Your task to perform on an android device: Open Maps and search for coffee Image 0: 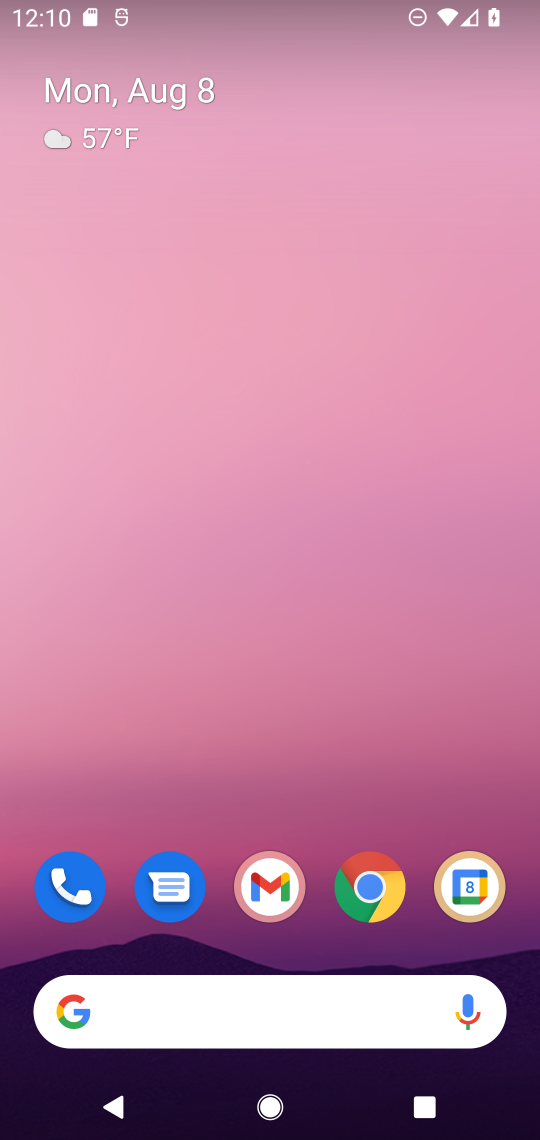
Step 0: drag from (301, 772) to (211, 9)
Your task to perform on an android device: Open Maps and search for coffee Image 1: 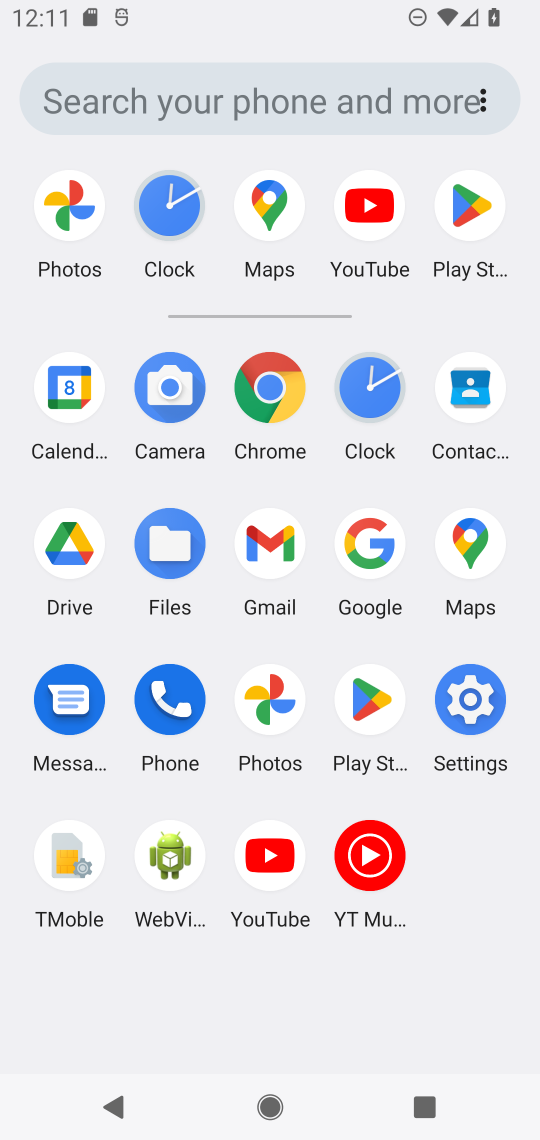
Step 1: click (472, 559)
Your task to perform on an android device: Open Maps and search for coffee Image 2: 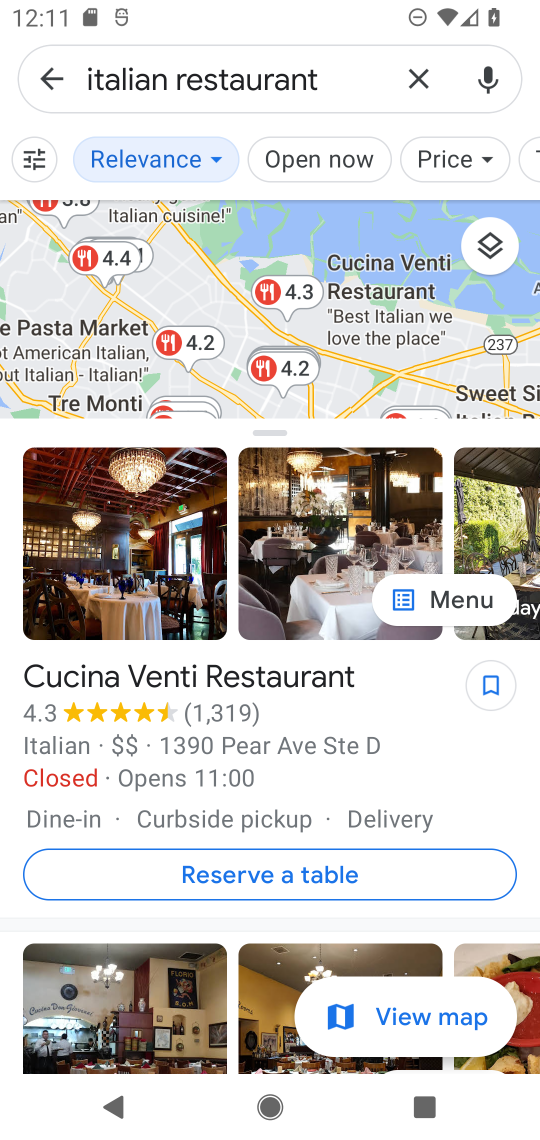
Step 2: click (412, 75)
Your task to perform on an android device: Open Maps and search for coffee Image 3: 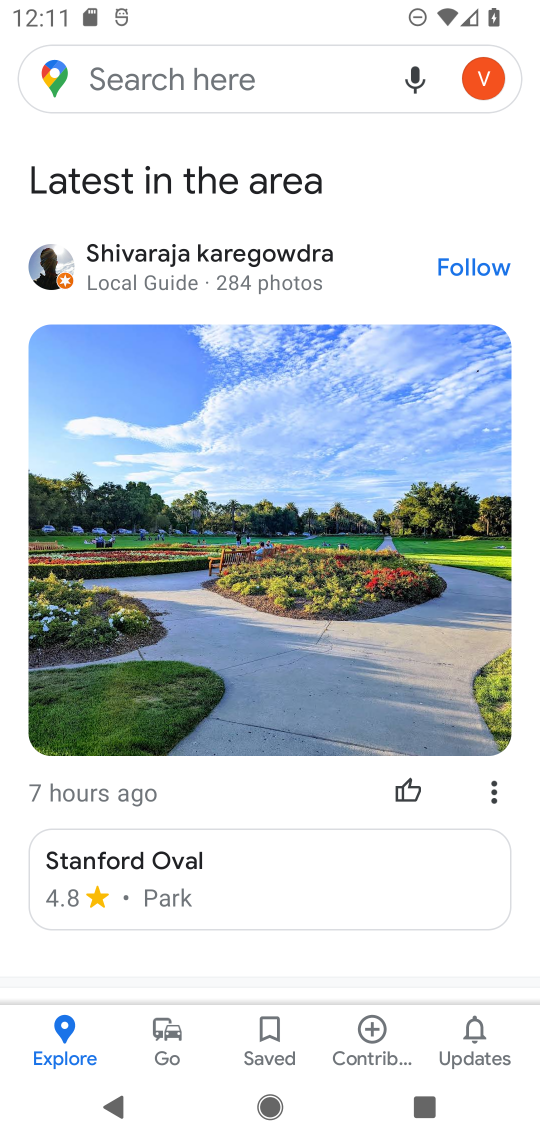
Step 3: click (265, 86)
Your task to perform on an android device: Open Maps and search for coffee Image 4: 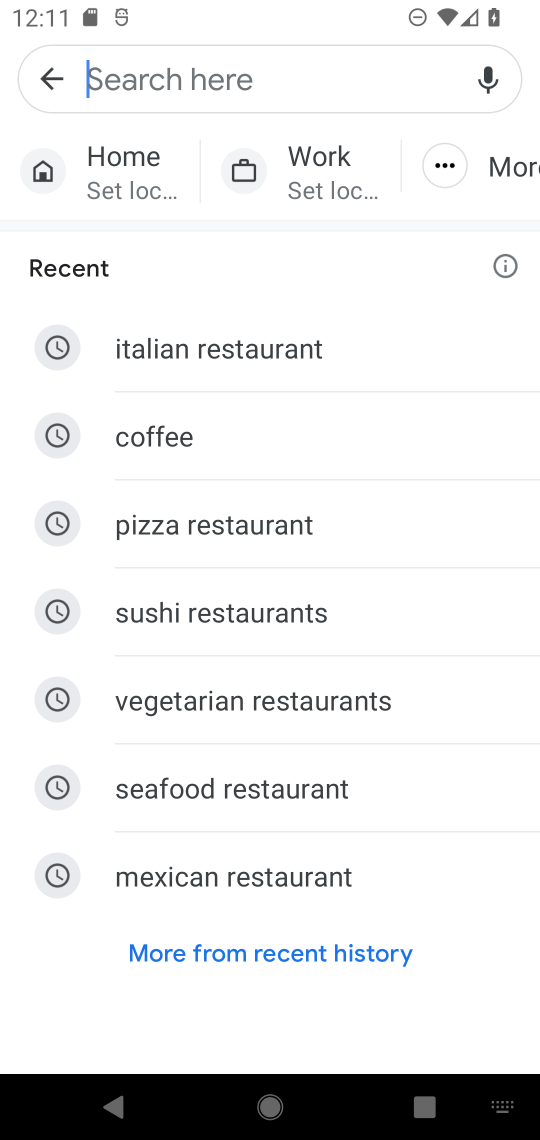
Step 4: click (187, 424)
Your task to perform on an android device: Open Maps and search for coffee Image 5: 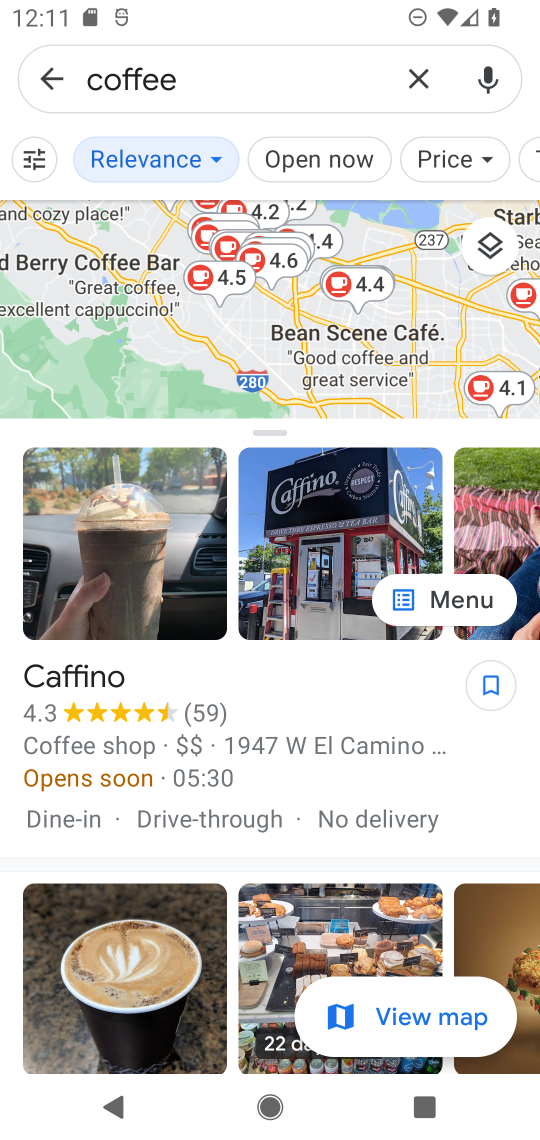
Step 5: task complete